Your task to perform on an android device: toggle improve location accuracy Image 0: 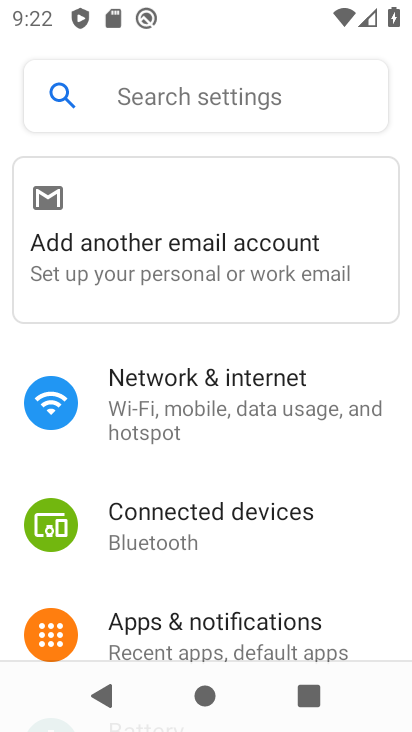
Step 0: drag from (255, 535) to (320, 129)
Your task to perform on an android device: toggle improve location accuracy Image 1: 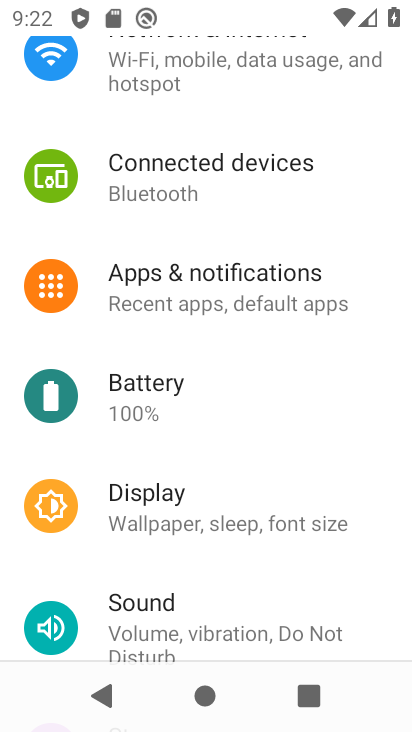
Step 1: drag from (228, 365) to (271, 140)
Your task to perform on an android device: toggle improve location accuracy Image 2: 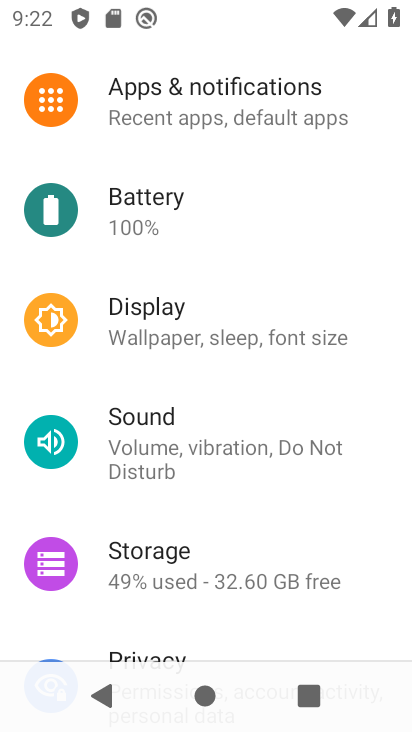
Step 2: drag from (180, 557) to (271, 108)
Your task to perform on an android device: toggle improve location accuracy Image 3: 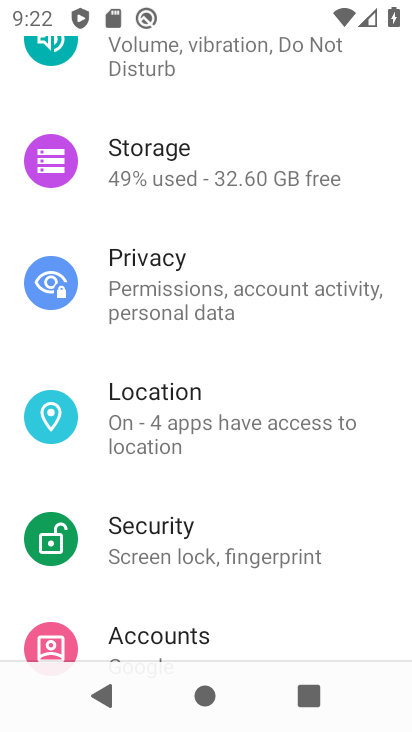
Step 3: click (151, 438)
Your task to perform on an android device: toggle improve location accuracy Image 4: 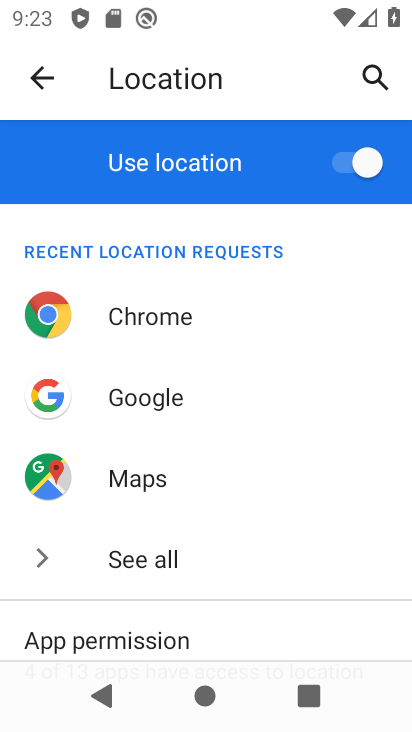
Step 4: drag from (219, 605) to (303, 213)
Your task to perform on an android device: toggle improve location accuracy Image 5: 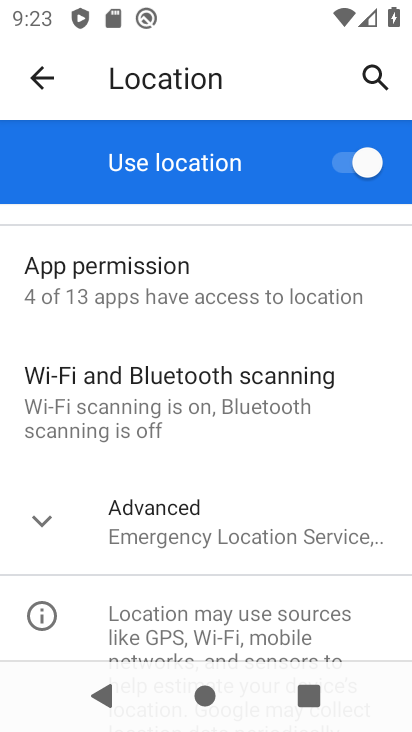
Step 5: click (202, 518)
Your task to perform on an android device: toggle improve location accuracy Image 6: 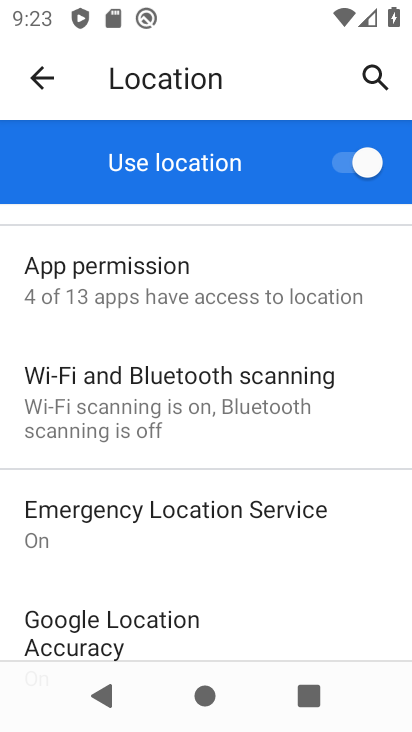
Step 6: click (136, 624)
Your task to perform on an android device: toggle improve location accuracy Image 7: 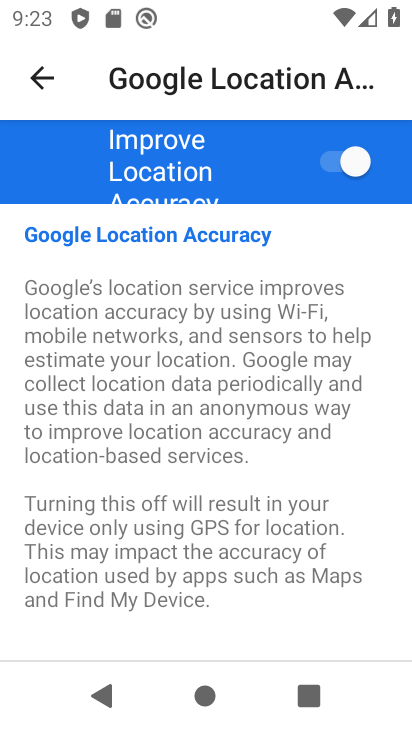
Step 7: click (340, 157)
Your task to perform on an android device: toggle improve location accuracy Image 8: 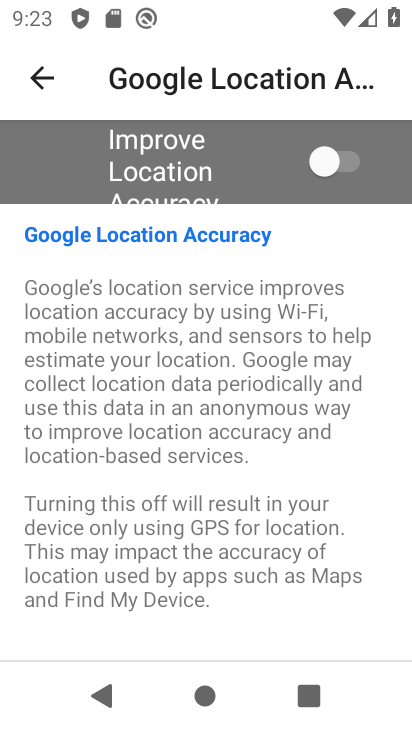
Step 8: task complete